Your task to perform on an android device: What is the news today? Image 0: 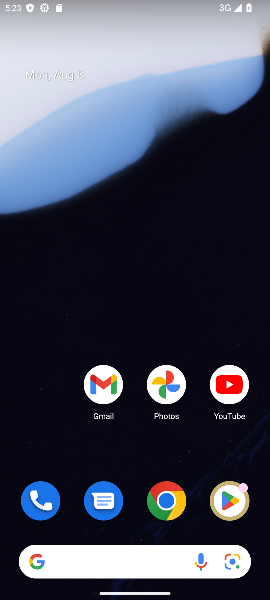
Step 0: click (91, 559)
Your task to perform on an android device: What is the news today? Image 1: 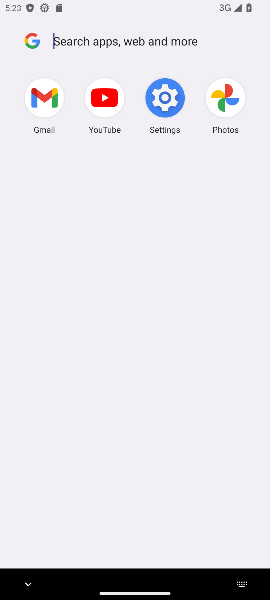
Step 1: click (159, 599)
Your task to perform on an android device: What is the news today? Image 2: 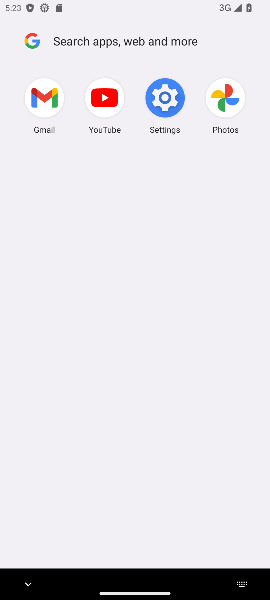
Step 2: type "What is the news today?"
Your task to perform on an android device: What is the news today? Image 3: 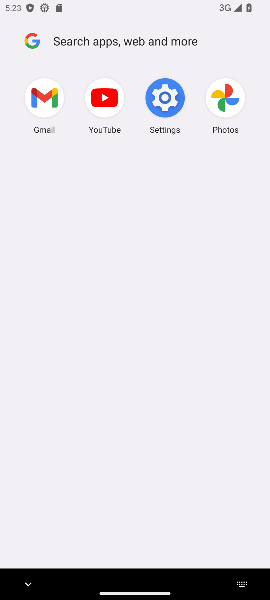
Step 3: click (179, 599)
Your task to perform on an android device: What is the news today? Image 4: 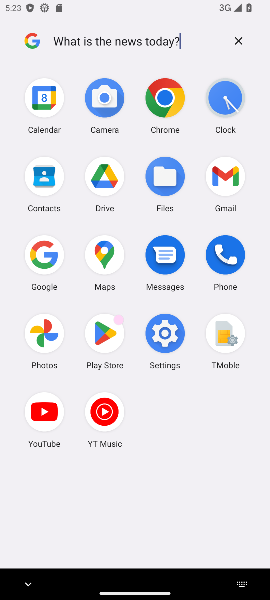
Step 4: task complete